Your task to perform on an android device: Show me popular games on the Play Store Image 0: 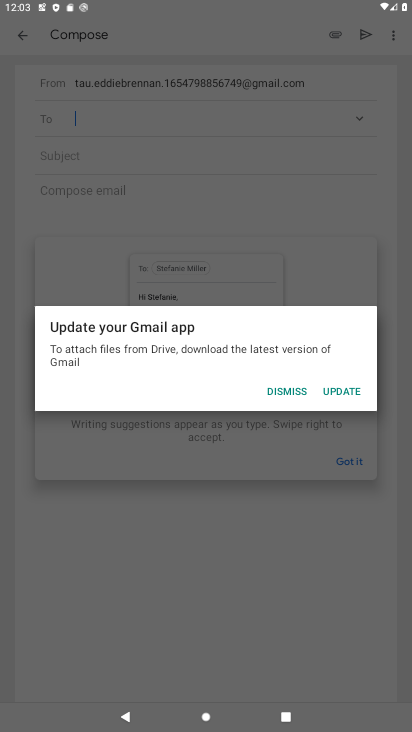
Step 0: press home button
Your task to perform on an android device: Show me popular games on the Play Store Image 1: 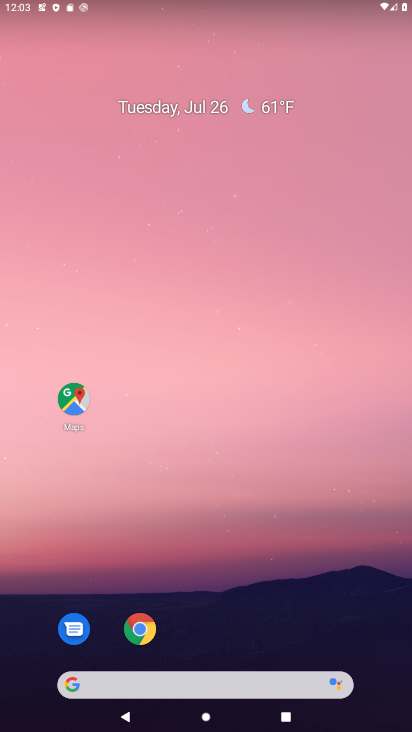
Step 1: drag from (197, 623) to (261, 218)
Your task to perform on an android device: Show me popular games on the Play Store Image 2: 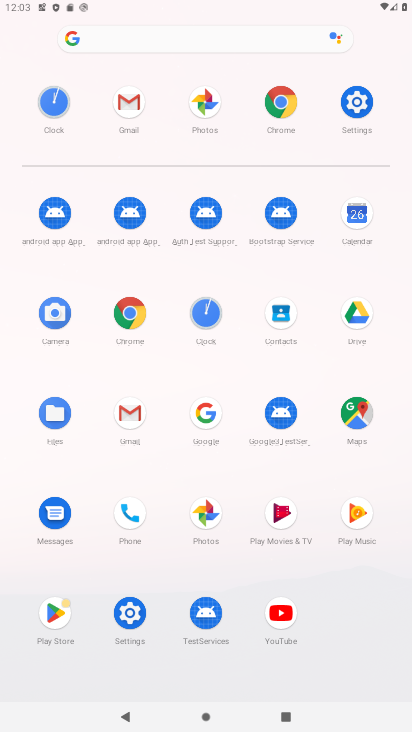
Step 2: click (59, 617)
Your task to perform on an android device: Show me popular games on the Play Store Image 3: 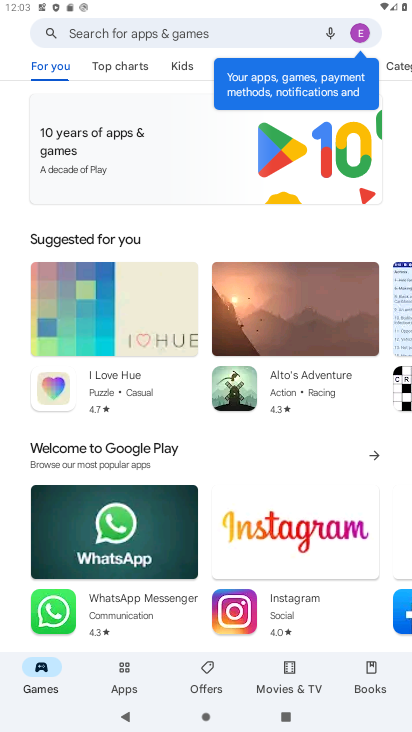
Step 3: click (111, 68)
Your task to perform on an android device: Show me popular games on the Play Store Image 4: 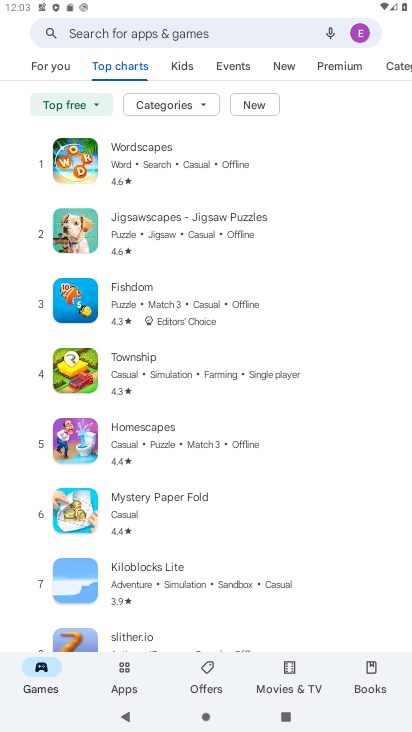
Step 4: task complete